Your task to perform on an android device: see creations saved in the google photos Image 0: 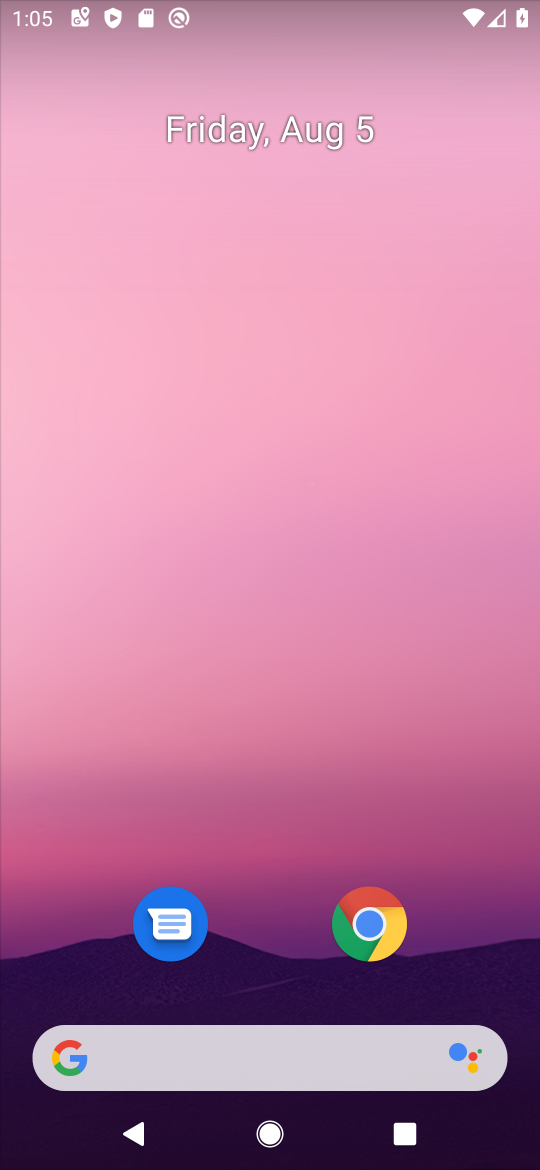
Step 0: drag from (232, 1030) to (234, 299)
Your task to perform on an android device: see creations saved in the google photos Image 1: 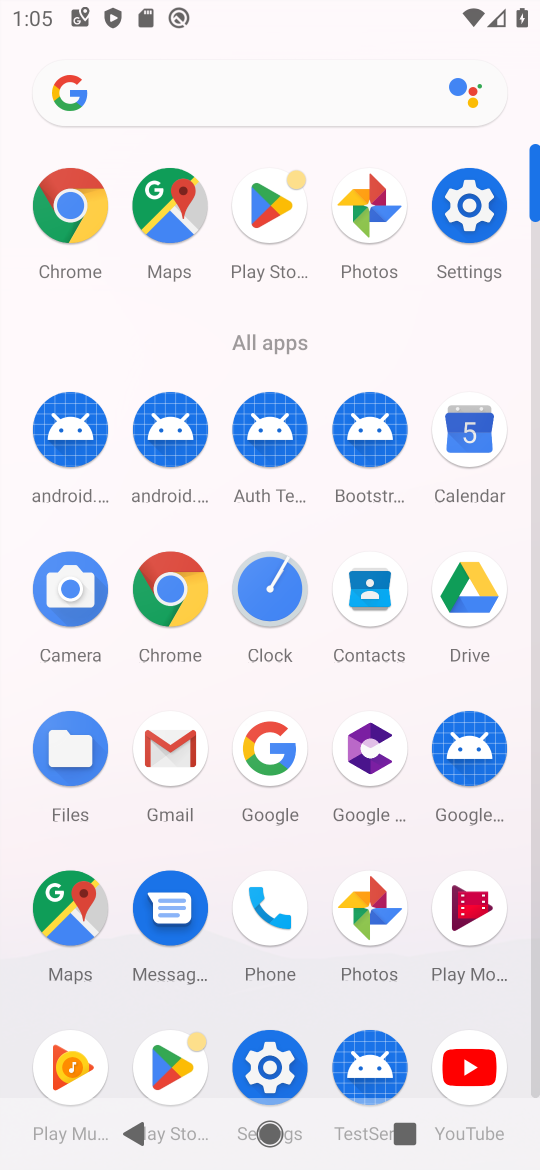
Step 1: click (370, 202)
Your task to perform on an android device: see creations saved in the google photos Image 2: 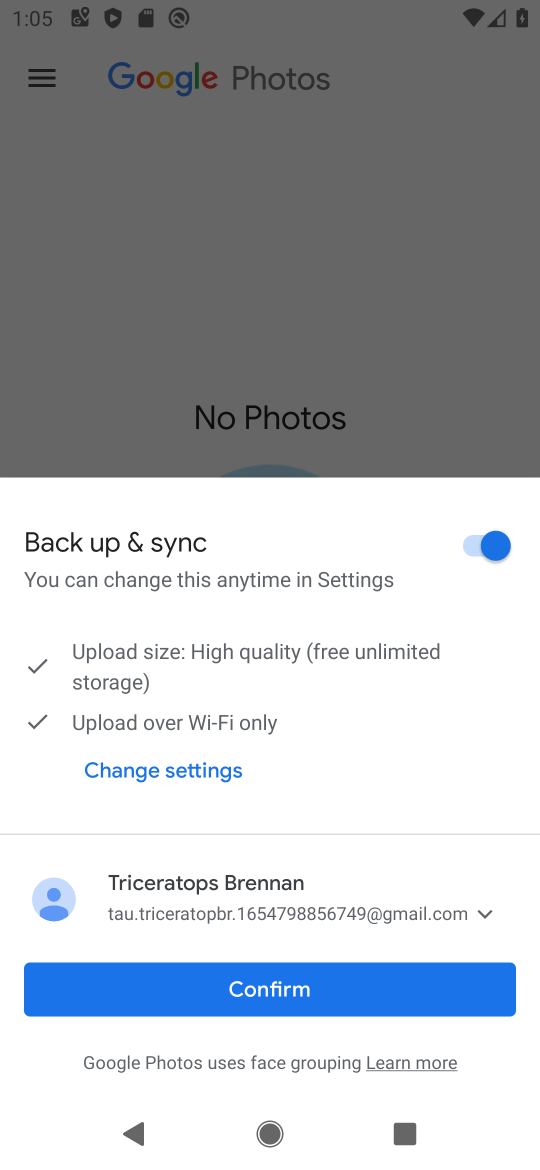
Step 2: click (261, 987)
Your task to perform on an android device: see creations saved in the google photos Image 3: 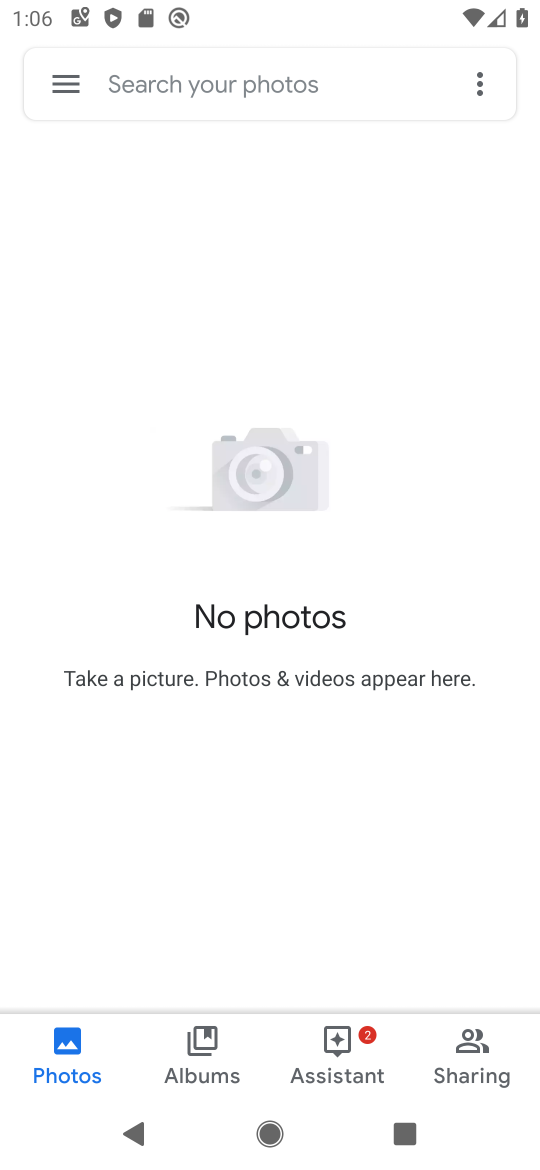
Step 3: click (481, 81)
Your task to perform on an android device: see creations saved in the google photos Image 4: 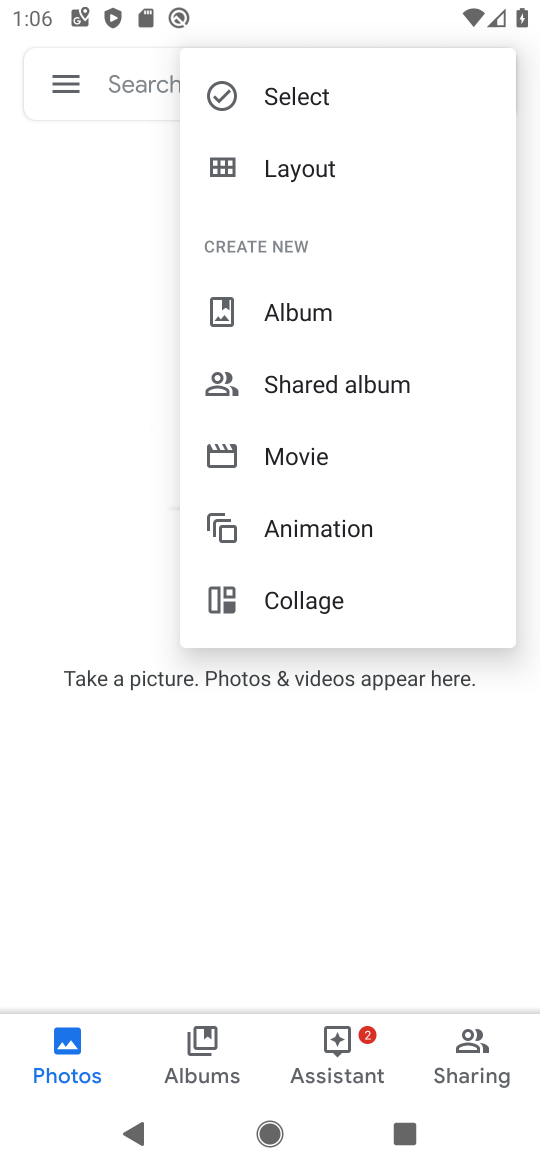
Step 4: click (325, 321)
Your task to perform on an android device: see creations saved in the google photos Image 5: 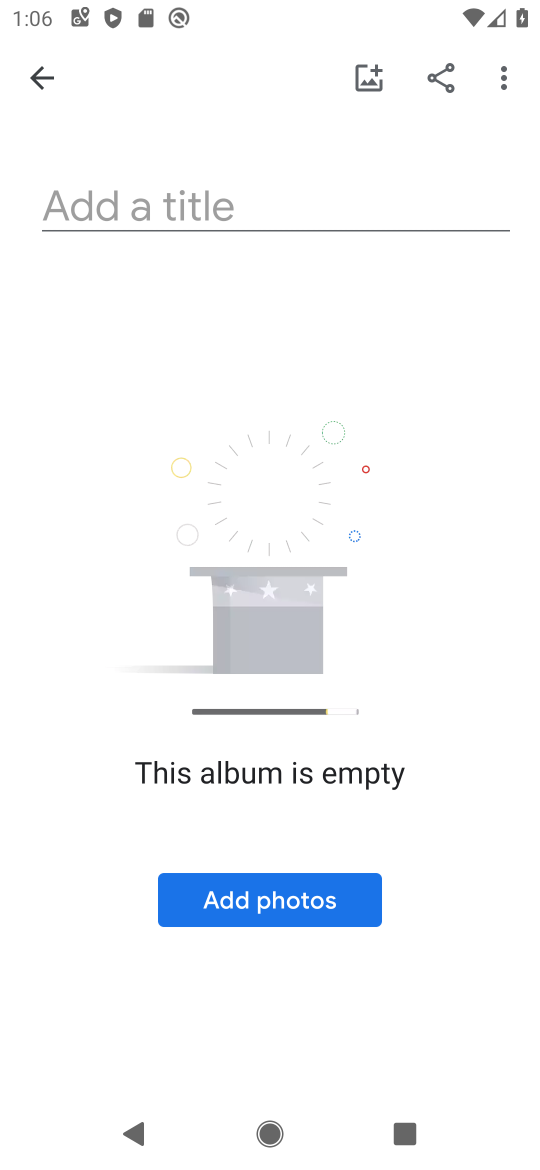
Step 5: press back button
Your task to perform on an android device: see creations saved in the google photos Image 6: 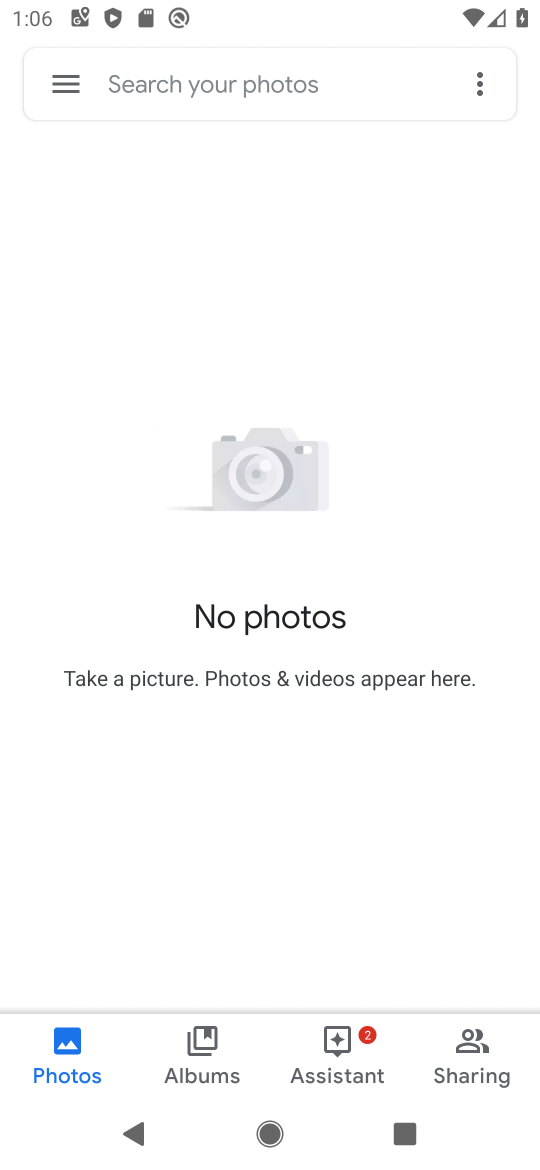
Step 6: click (201, 1047)
Your task to perform on an android device: see creations saved in the google photos Image 7: 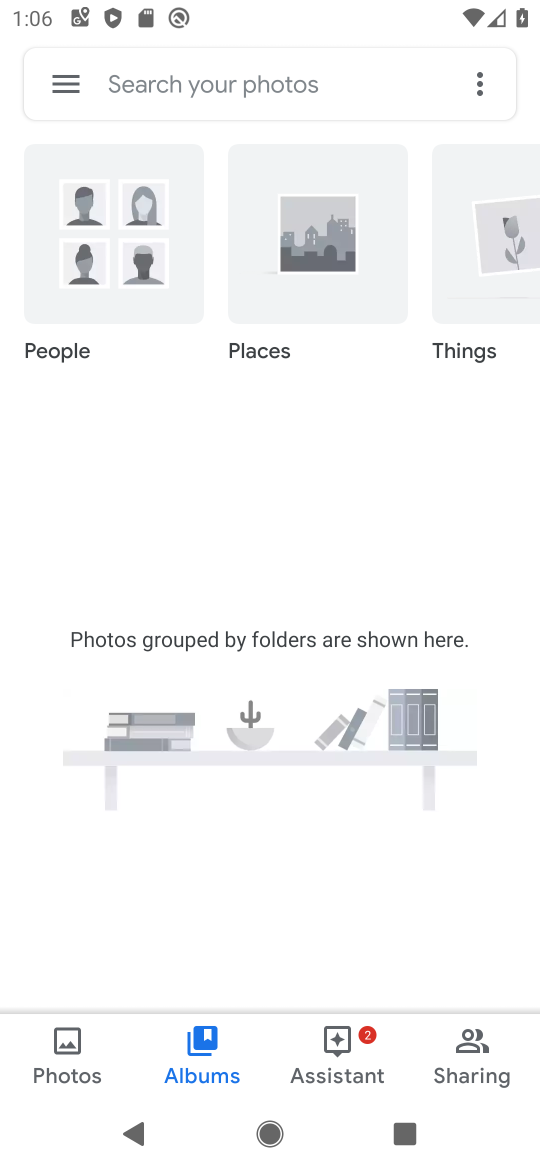
Step 7: click (59, 95)
Your task to perform on an android device: see creations saved in the google photos Image 8: 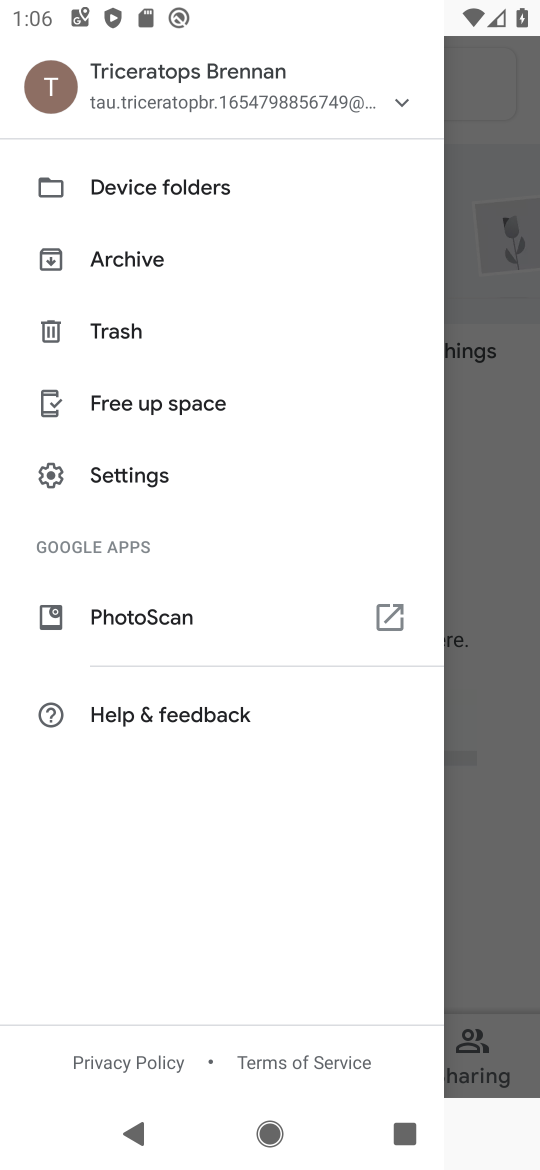
Step 8: click (125, 472)
Your task to perform on an android device: see creations saved in the google photos Image 9: 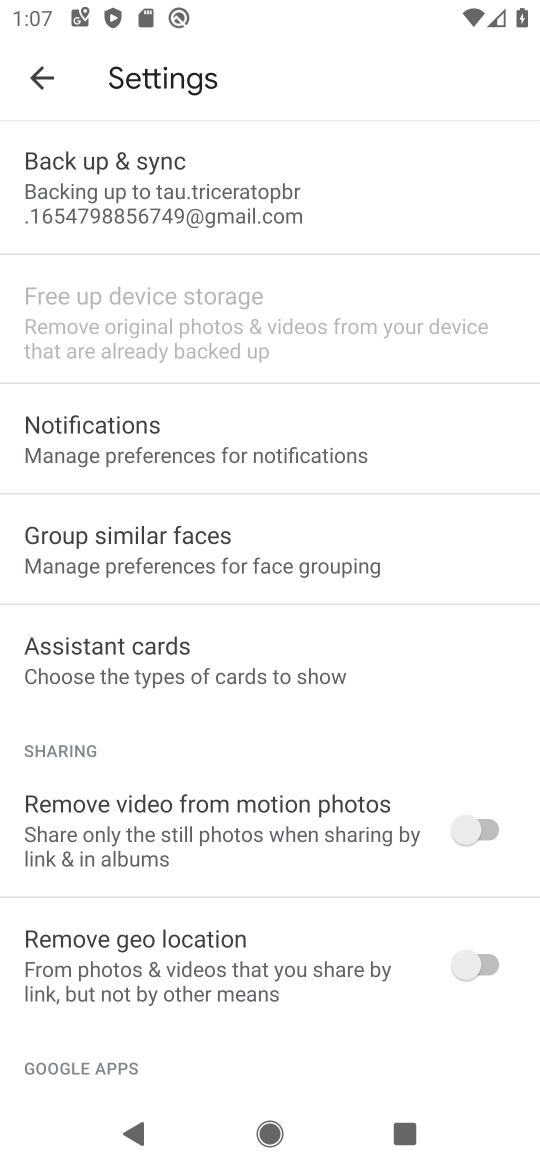
Step 9: click (159, 445)
Your task to perform on an android device: see creations saved in the google photos Image 10: 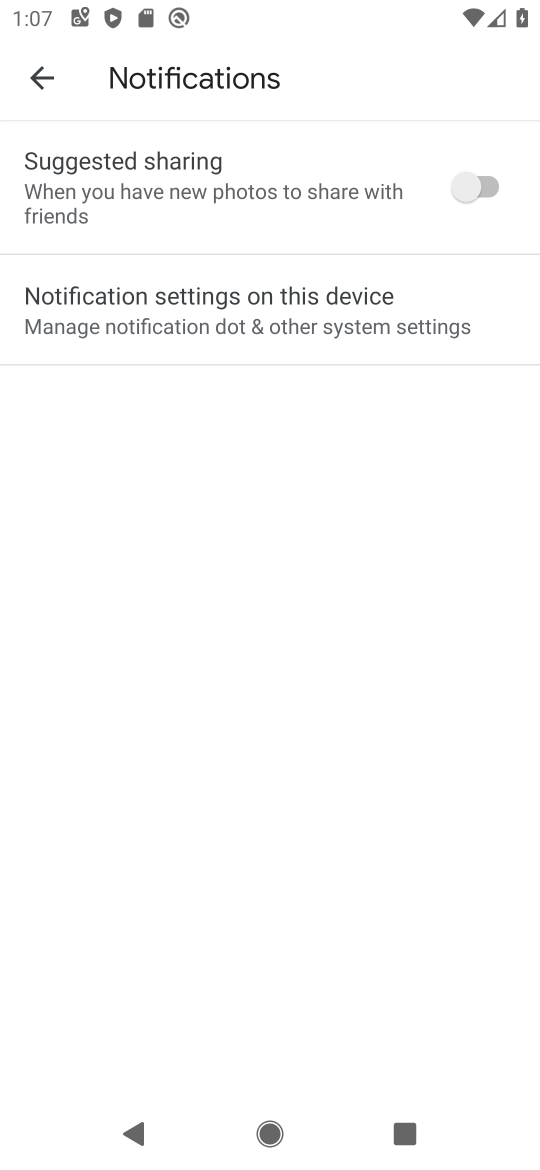
Step 10: click (197, 316)
Your task to perform on an android device: see creations saved in the google photos Image 11: 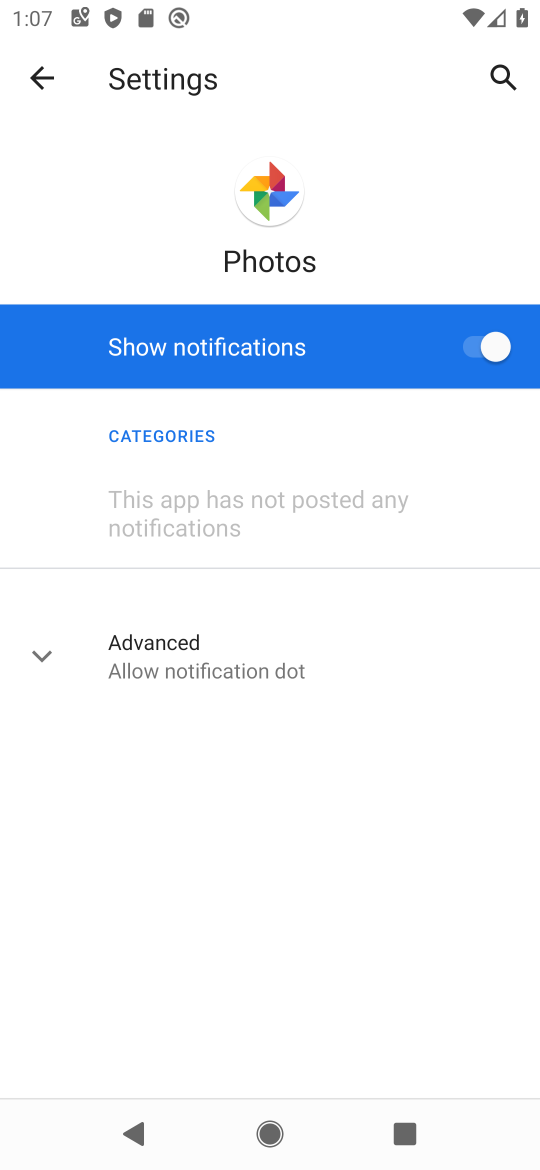
Step 11: press back button
Your task to perform on an android device: see creations saved in the google photos Image 12: 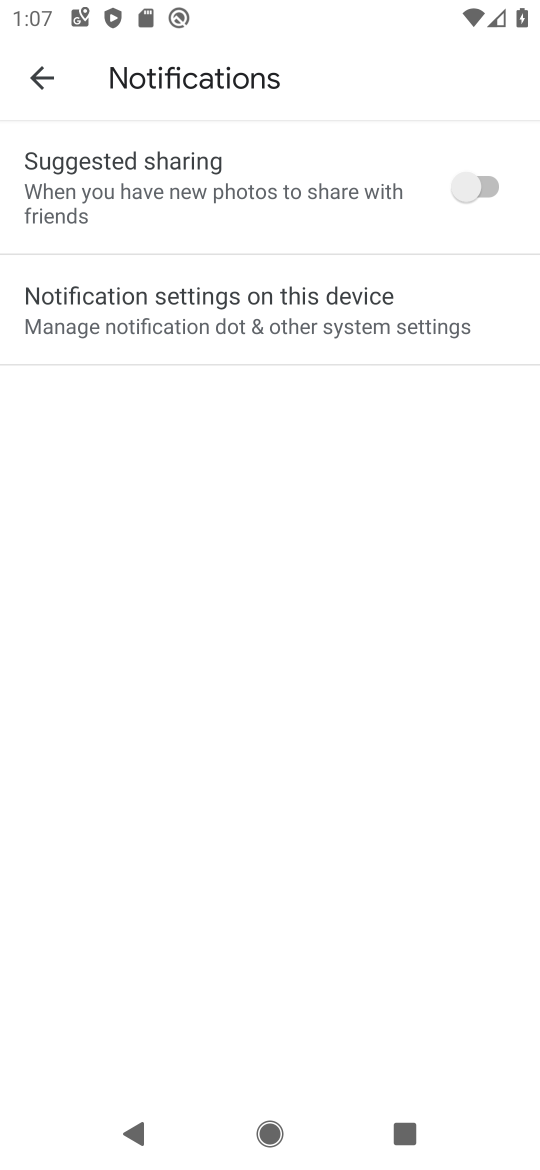
Step 12: press back button
Your task to perform on an android device: see creations saved in the google photos Image 13: 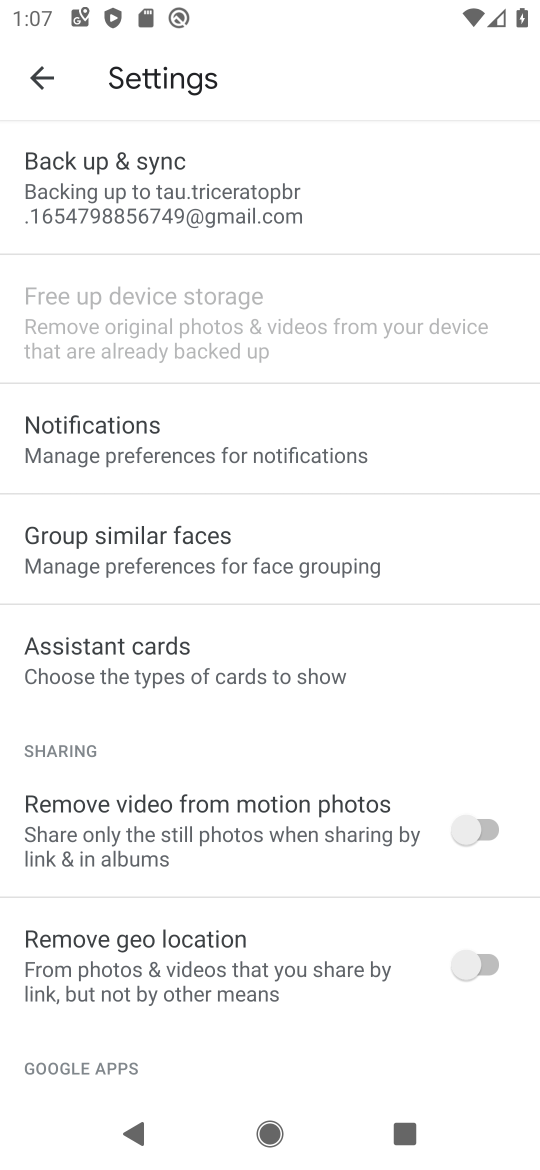
Step 13: press back button
Your task to perform on an android device: see creations saved in the google photos Image 14: 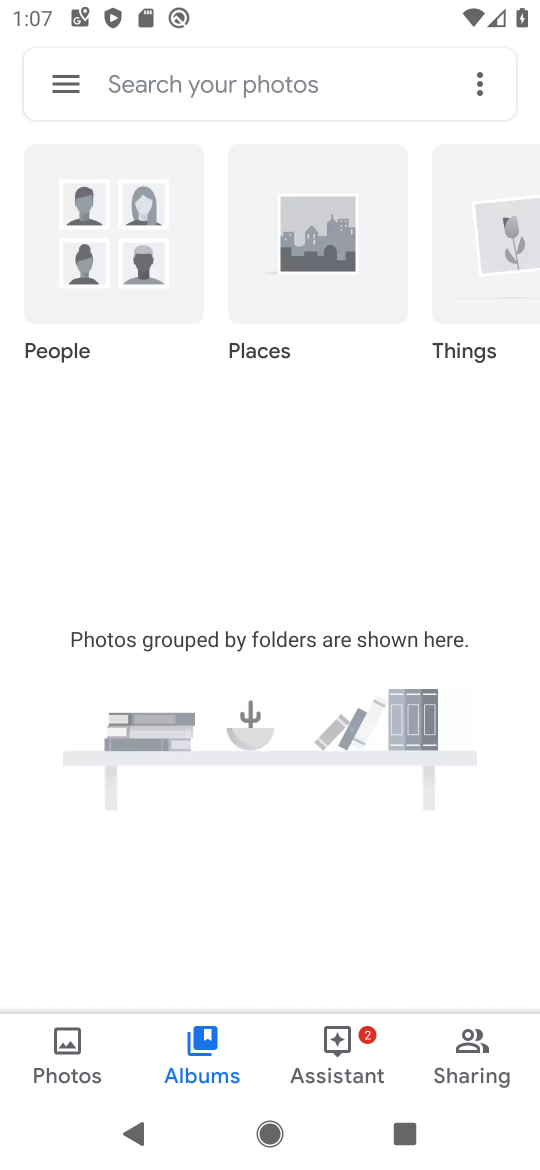
Step 14: click (227, 73)
Your task to perform on an android device: see creations saved in the google photos Image 15: 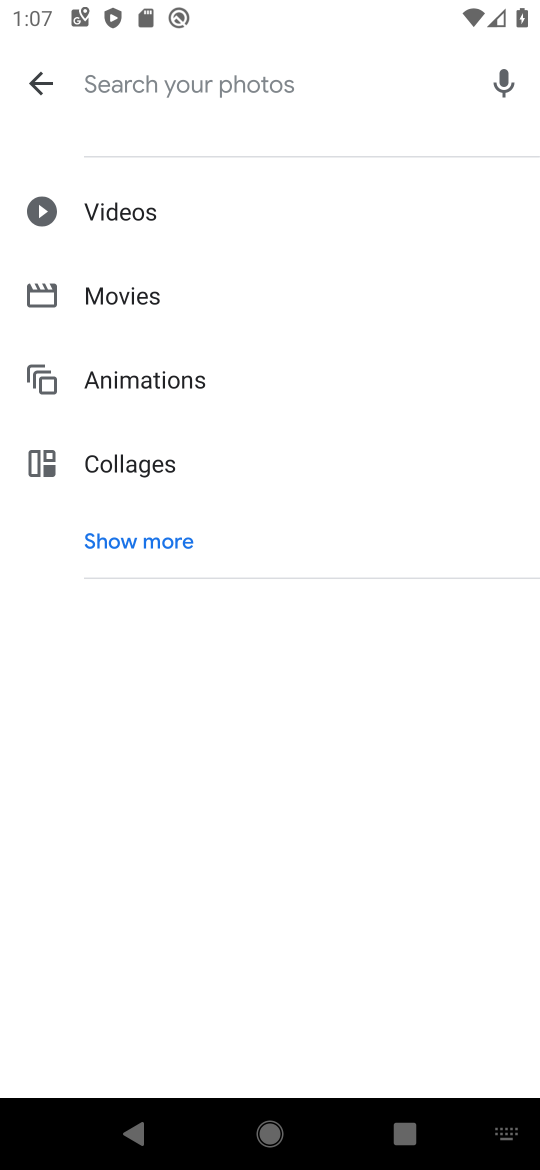
Step 15: task complete